Your task to perform on an android device: make emails show in primary in the gmail app Image 0: 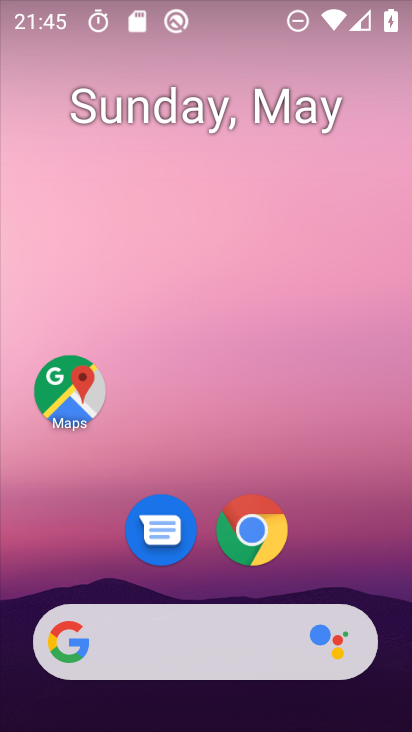
Step 0: drag from (256, 677) to (175, 132)
Your task to perform on an android device: make emails show in primary in the gmail app Image 1: 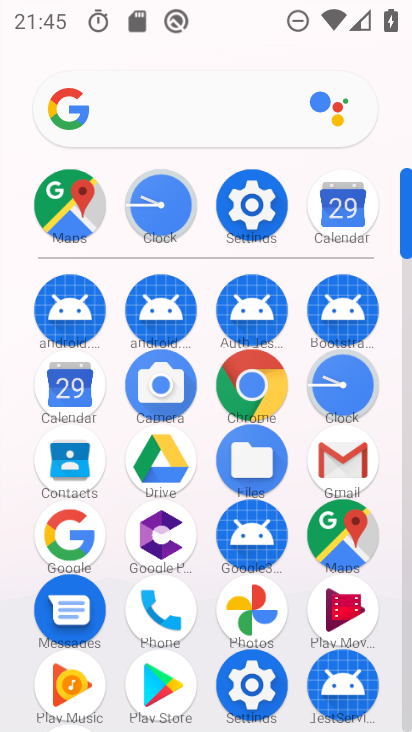
Step 1: click (352, 467)
Your task to perform on an android device: make emails show in primary in the gmail app Image 2: 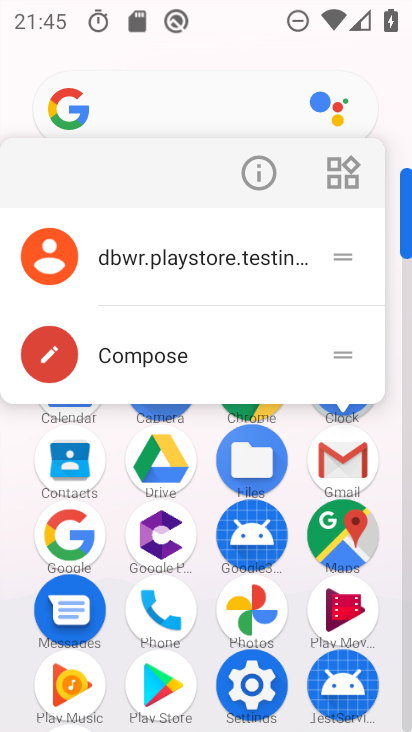
Step 2: click (357, 454)
Your task to perform on an android device: make emails show in primary in the gmail app Image 3: 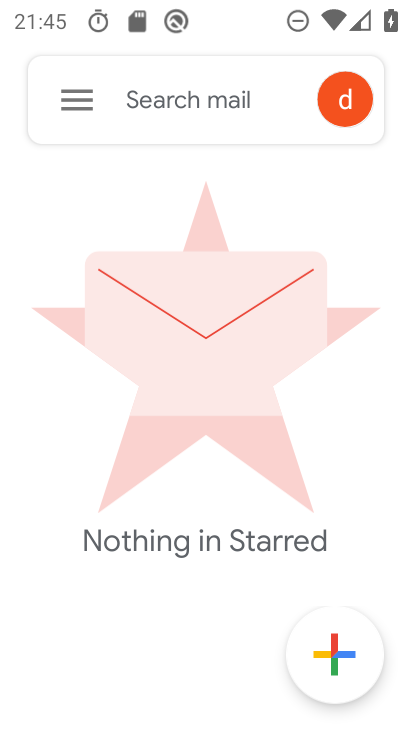
Step 3: click (67, 95)
Your task to perform on an android device: make emails show in primary in the gmail app Image 4: 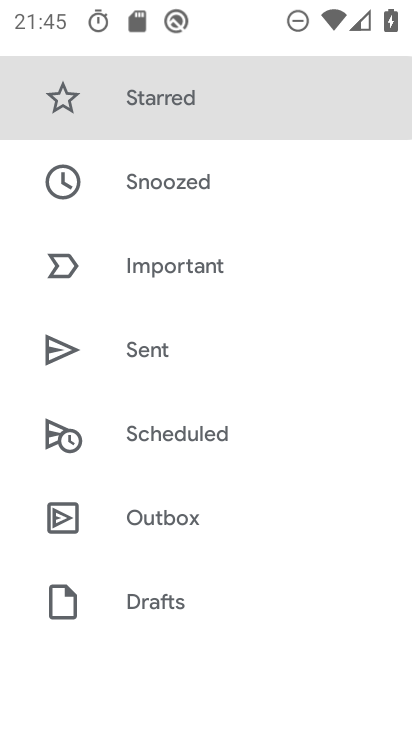
Step 4: drag from (193, 510) to (249, 200)
Your task to perform on an android device: make emails show in primary in the gmail app Image 5: 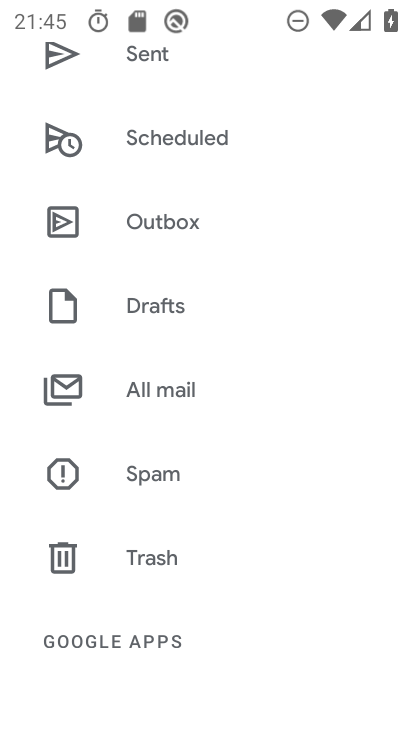
Step 5: drag from (161, 596) to (167, 284)
Your task to perform on an android device: make emails show in primary in the gmail app Image 6: 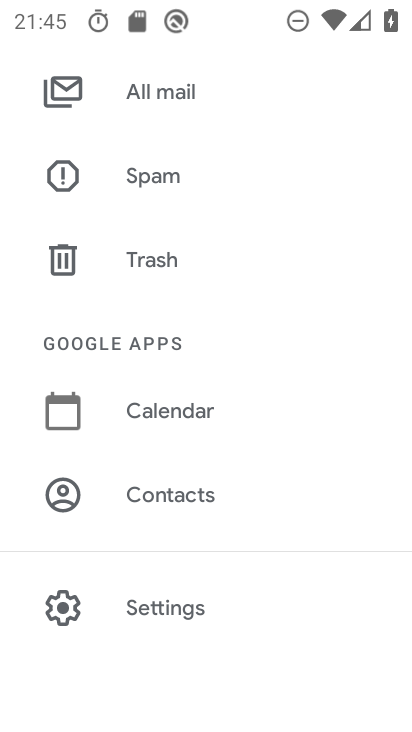
Step 6: click (193, 600)
Your task to perform on an android device: make emails show in primary in the gmail app Image 7: 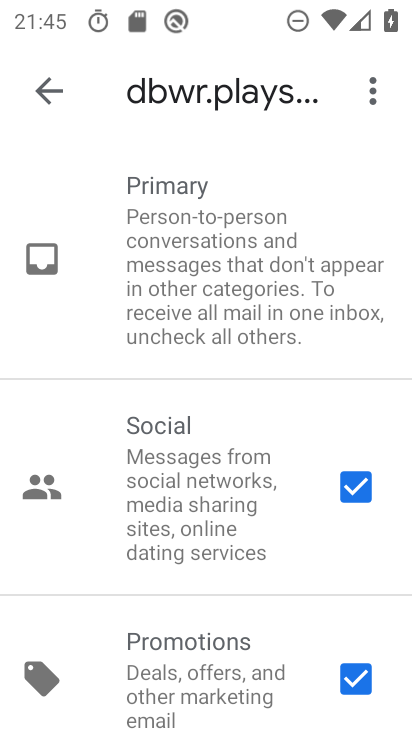
Step 7: click (225, 235)
Your task to perform on an android device: make emails show in primary in the gmail app Image 8: 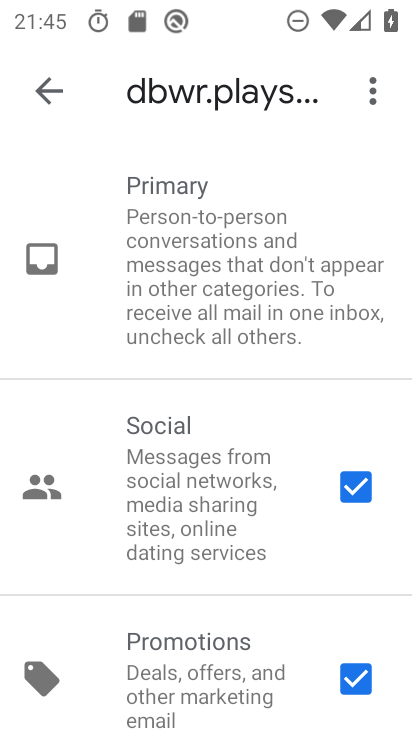
Step 8: task complete